Your task to perform on an android device: open chrome and create a bookmark for the current page Image 0: 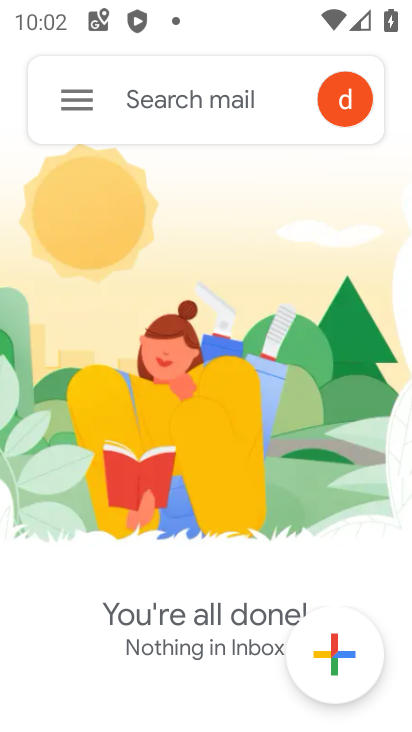
Step 0: press home button
Your task to perform on an android device: open chrome and create a bookmark for the current page Image 1: 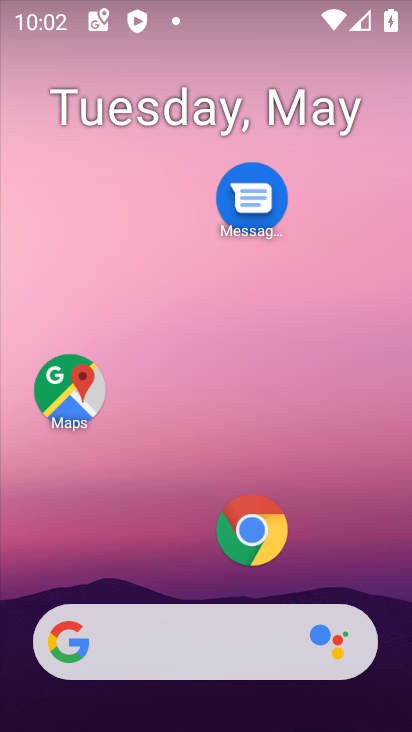
Step 1: click (252, 543)
Your task to perform on an android device: open chrome and create a bookmark for the current page Image 2: 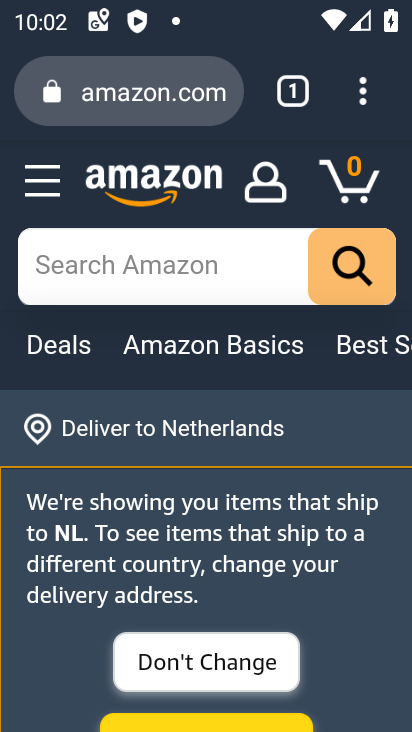
Step 2: click (358, 99)
Your task to perform on an android device: open chrome and create a bookmark for the current page Image 3: 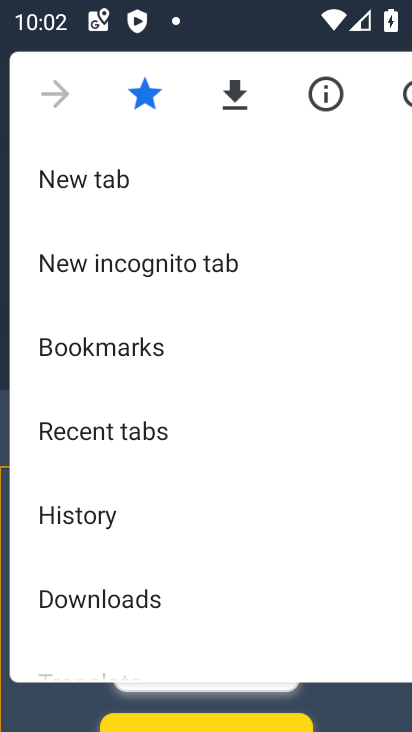
Step 3: task complete